Your task to perform on an android device: Go to display settings Image 0: 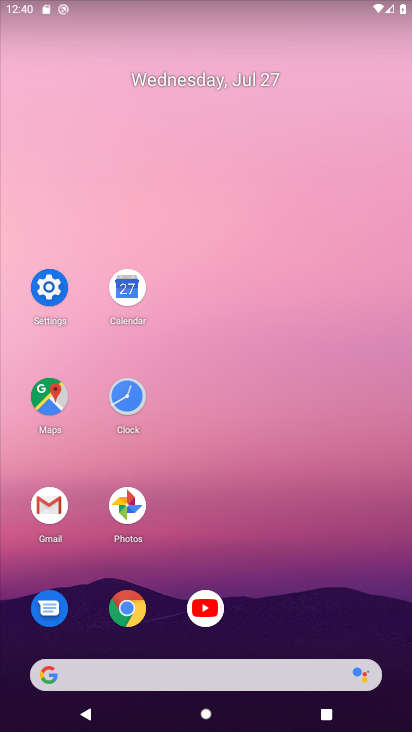
Step 0: click (48, 287)
Your task to perform on an android device: Go to display settings Image 1: 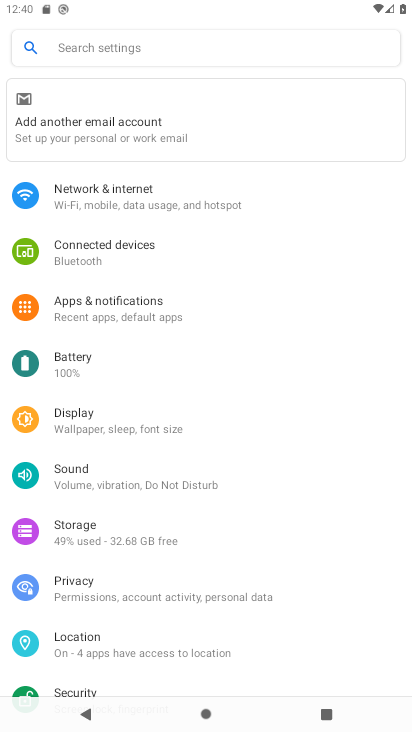
Step 1: click (65, 414)
Your task to perform on an android device: Go to display settings Image 2: 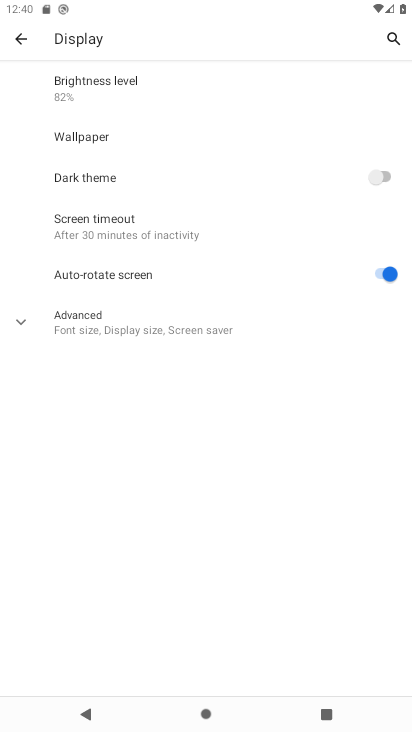
Step 2: task complete